Your task to perform on an android device: What is the news today? Image 0: 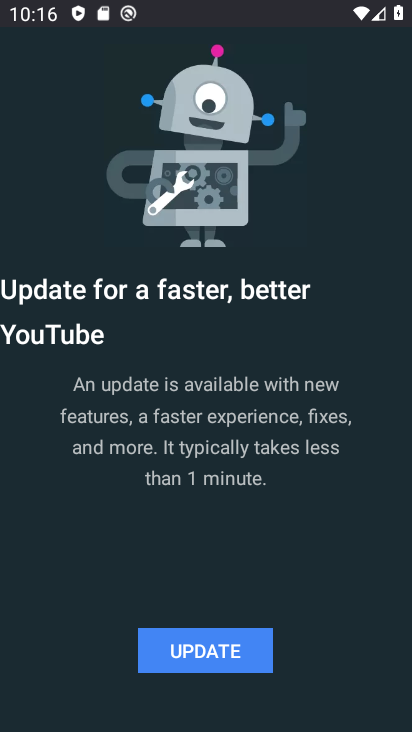
Step 0: press back button
Your task to perform on an android device: What is the news today? Image 1: 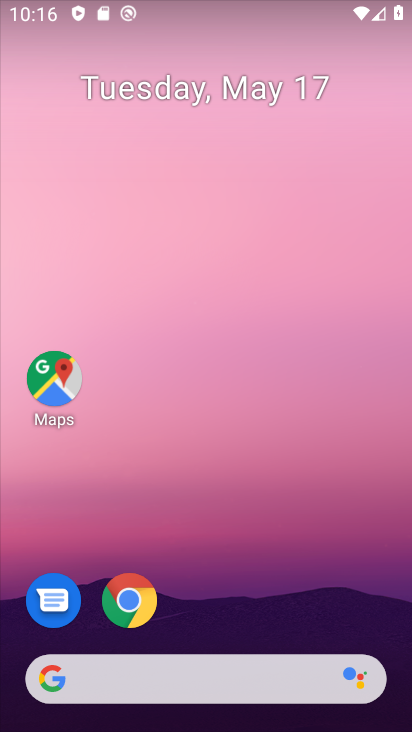
Step 1: click (180, 675)
Your task to perform on an android device: What is the news today? Image 2: 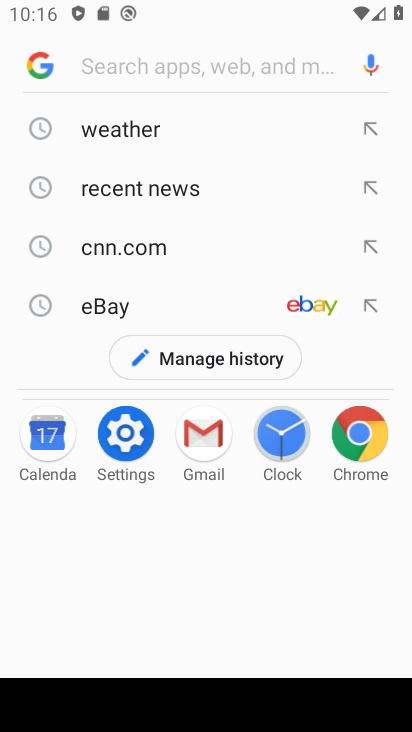
Step 2: type "news today"
Your task to perform on an android device: What is the news today? Image 3: 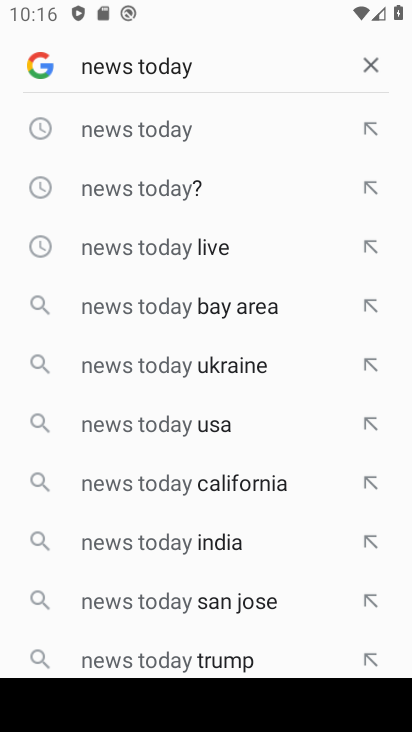
Step 3: click (196, 121)
Your task to perform on an android device: What is the news today? Image 4: 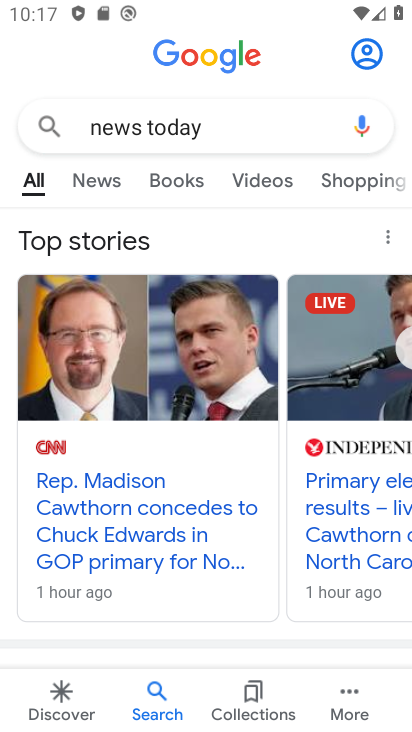
Step 4: task complete